Your task to perform on an android device: Open Google Maps and go to "Timeline" Image 0: 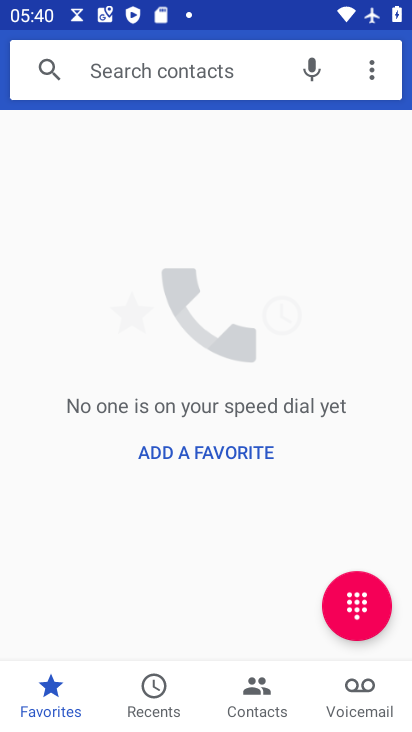
Step 0: press home button
Your task to perform on an android device: Open Google Maps and go to "Timeline" Image 1: 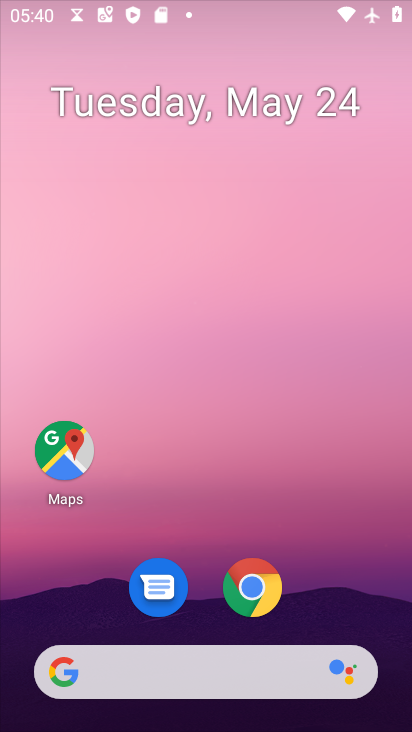
Step 1: click (61, 425)
Your task to perform on an android device: Open Google Maps and go to "Timeline" Image 2: 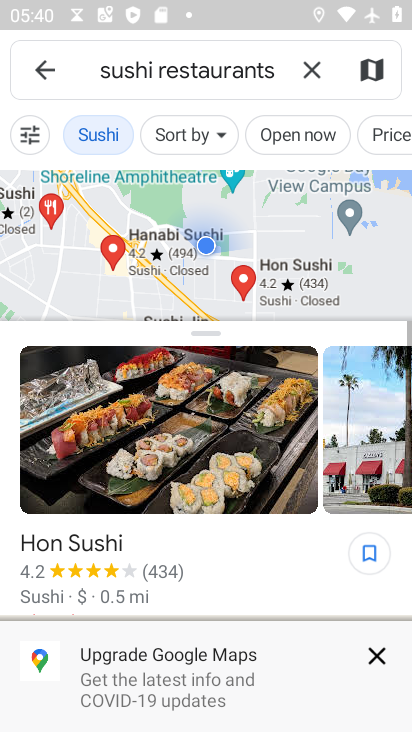
Step 2: click (307, 70)
Your task to perform on an android device: Open Google Maps and go to "Timeline" Image 3: 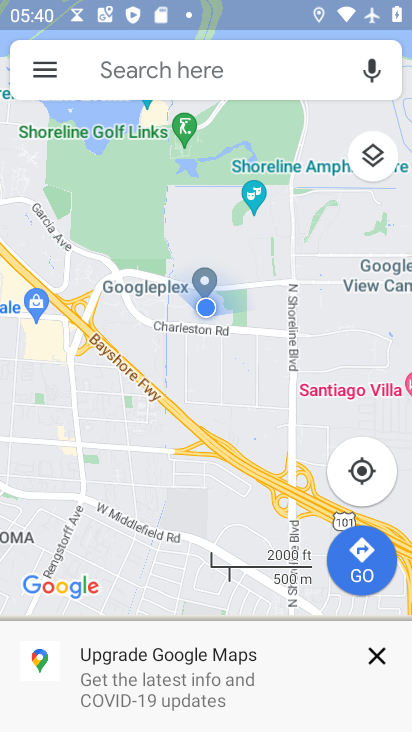
Step 3: click (48, 65)
Your task to perform on an android device: Open Google Maps and go to "Timeline" Image 4: 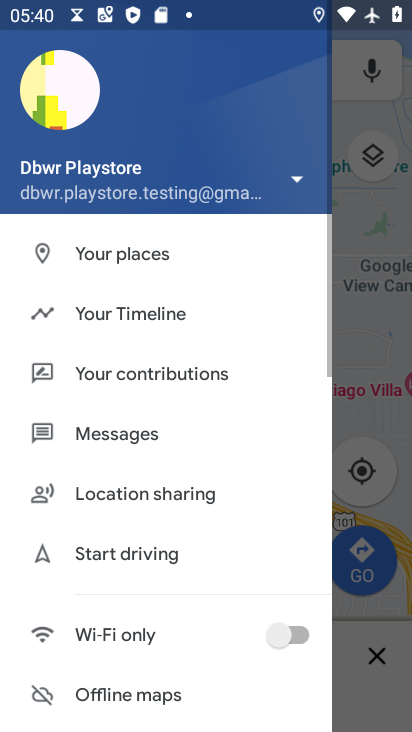
Step 4: click (187, 314)
Your task to perform on an android device: Open Google Maps and go to "Timeline" Image 5: 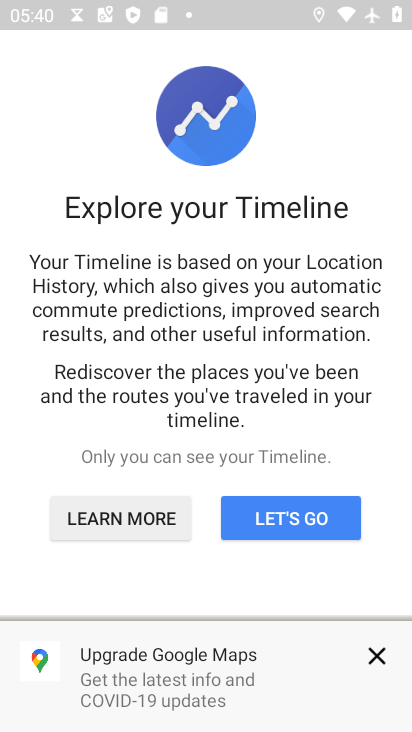
Step 5: click (314, 520)
Your task to perform on an android device: Open Google Maps and go to "Timeline" Image 6: 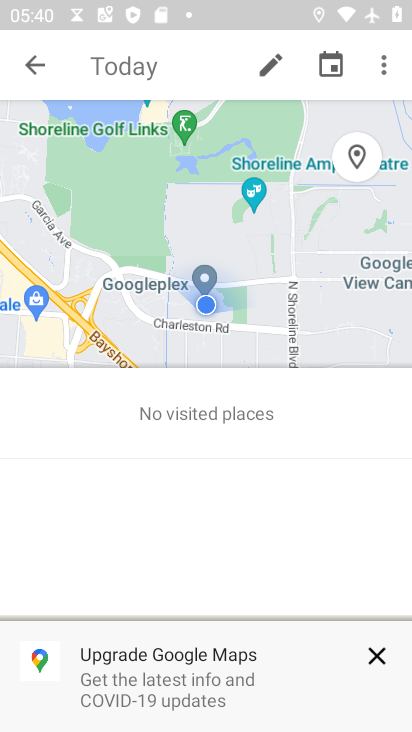
Step 6: task complete